Your task to perform on an android device: change the upload size in google photos Image 0: 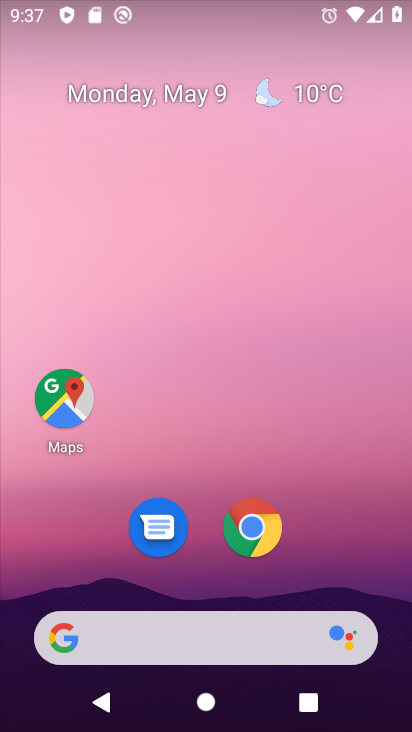
Step 0: drag from (395, 636) to (350, 31)
Your task to perform on an android device: change the upload size in google photos Image 1: 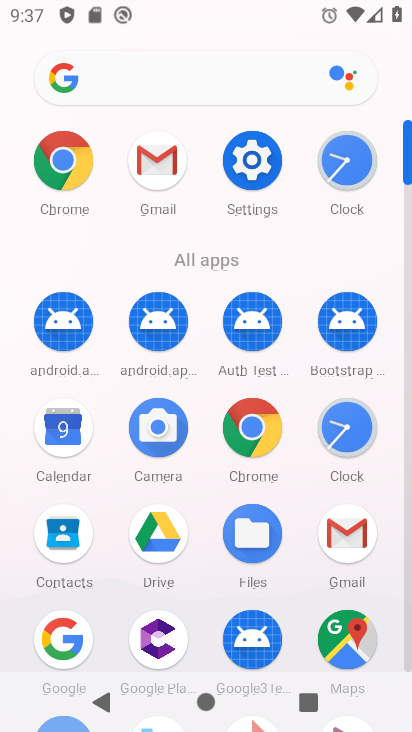
Step 1: click (410, 644)
Your task to perform on an android device: change the upload size in google photos Image 2: 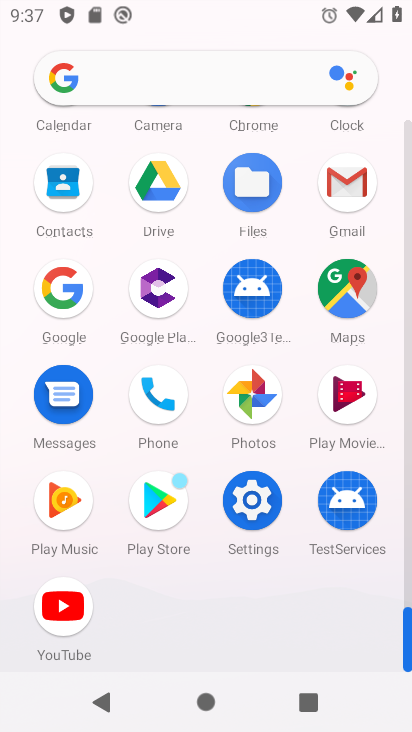
Step 2: click (252, 396)
Your task to perform on an android device: change the upload size in google photos Image 3: 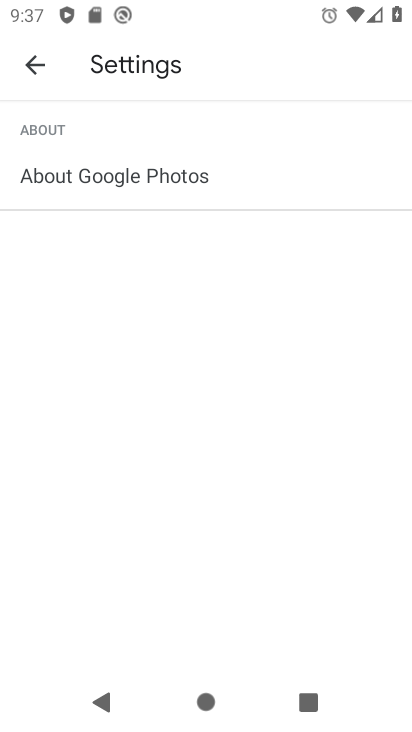
Step 3: press back button
Your task to perform on an android device: change the upload size in google photos Image 4: 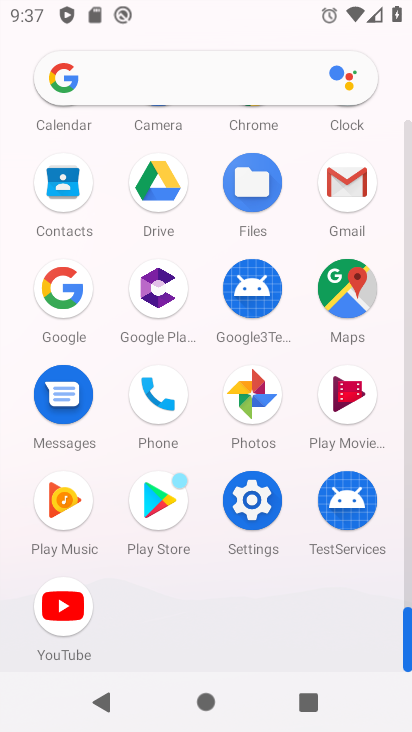
Step 4: click (252, 394)
Your task to perform on an android device: change the upload size in google photos Image 5: 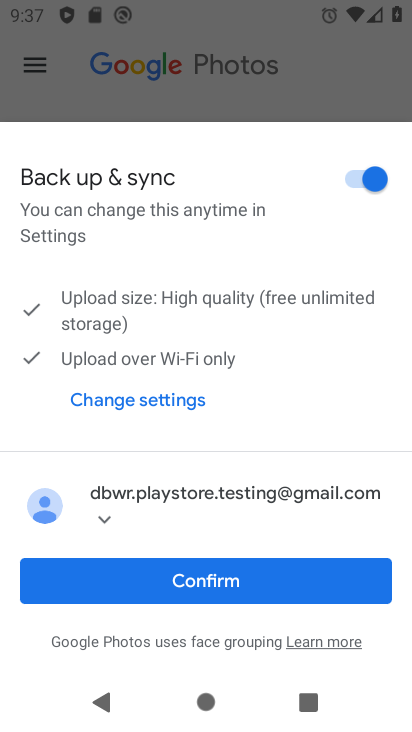
Step 5: click (203, 589)
Your task to perform on an android device: change the upload size in google photos Image 6: 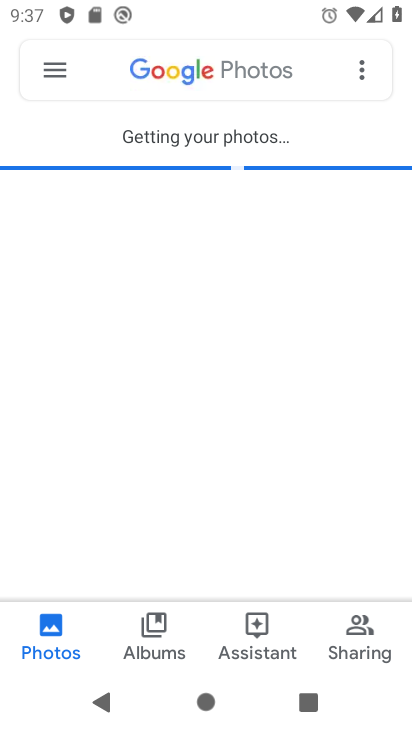
Step 6: click (34, 65)
Your task to perform on an android device: change the upload size in google photos Image 7: 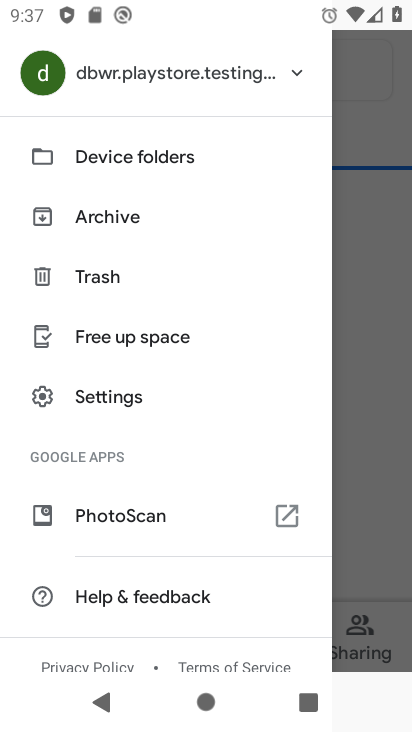
Step 7: click (103, 403)
Your task to perform on an android device: change the upload size in google photos Image 8: 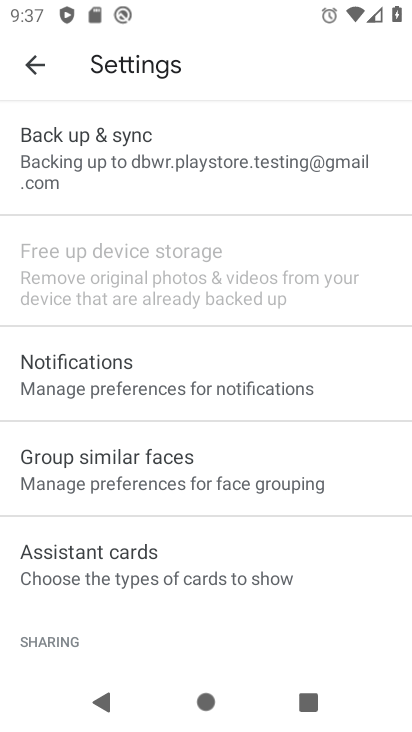
Step 8: click (82, 148)
Your task to perform on an android device: change the upload size in google photos Image 9: 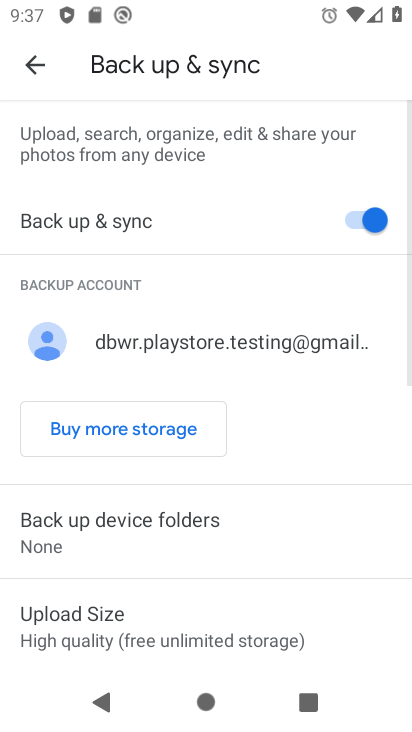
Step 9: drag from (108, 572) to (188, 156)
Your task to perform on an android device: change the upload size in google photos Image 10: 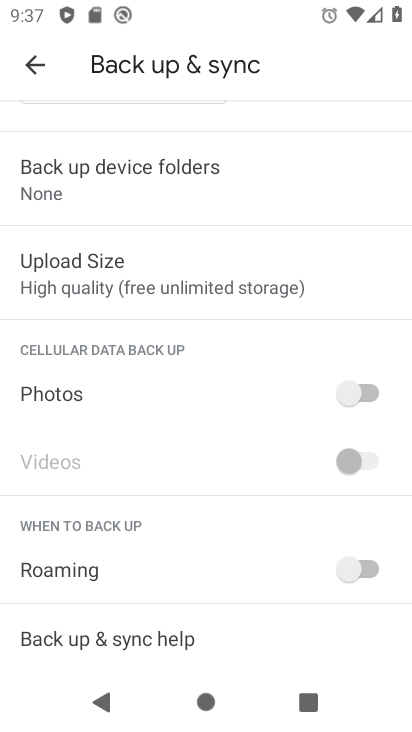
Step 10: click (48, 275)
Your task to perform on an android device: change the upload size in google photos Image 11: 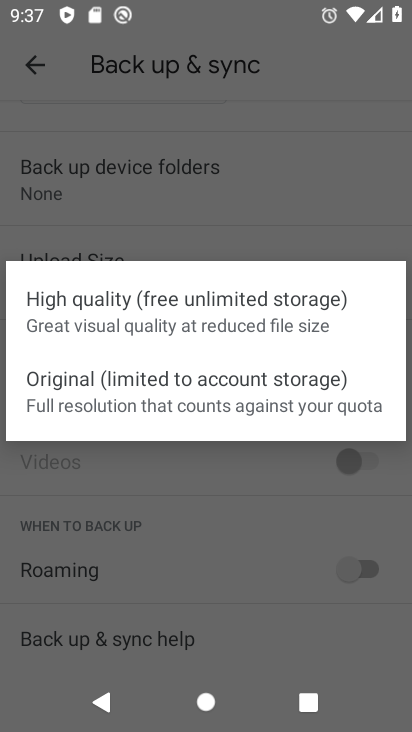
Step 11: click (124, 390)
Your task to perform on an android device: change the upload size in google photos Image 12: 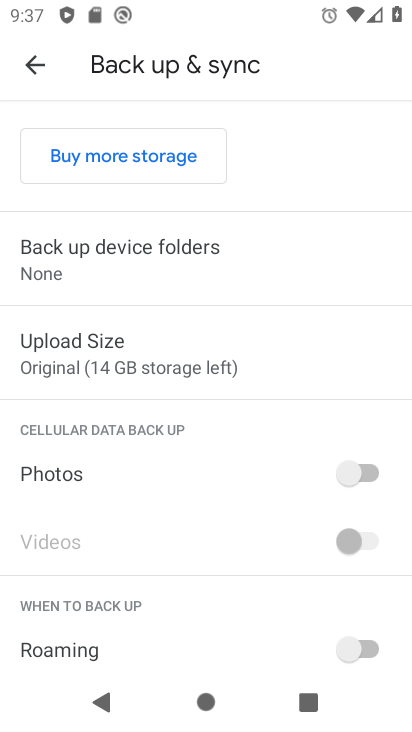
Step 12: task complete